Your task to perform on an android device: Add razer thresher to the cart on costco.com, then select checkout. Image 0: 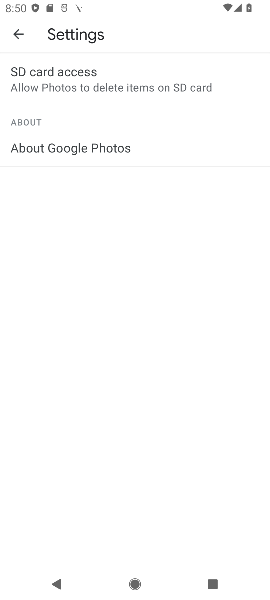
Step 0: task complete